Your task to perform on an android device: Go to location settings Image 0: 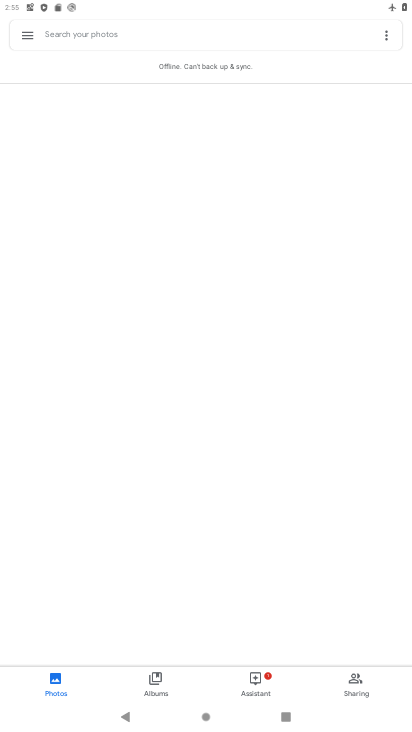
Step 0: press home button
Your task to perform on an android device: Go to location settings Image 1: 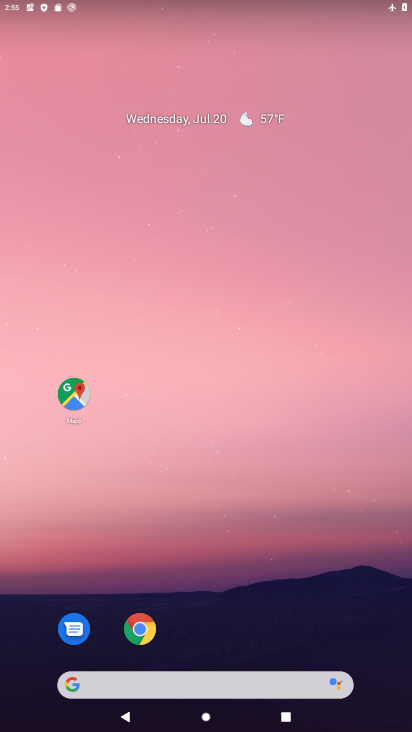
Step 1: drag from (208, 618) to (213, 190)
Your task to perform on an android device: Go to location settings Image 2: 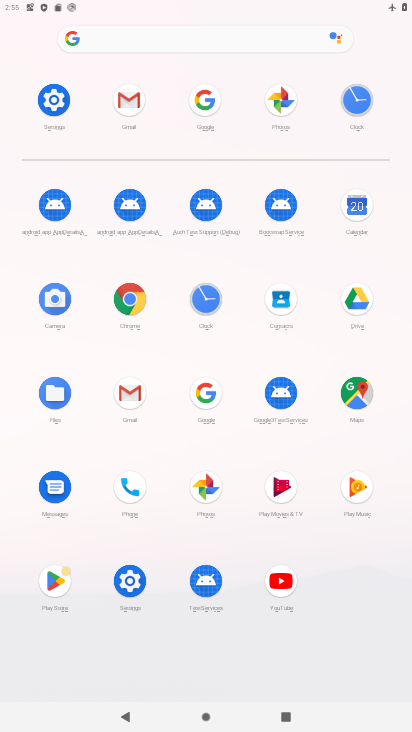
Step 2: click (67, 100)
Your task to perform on an android device: Go to location settings Image 3: 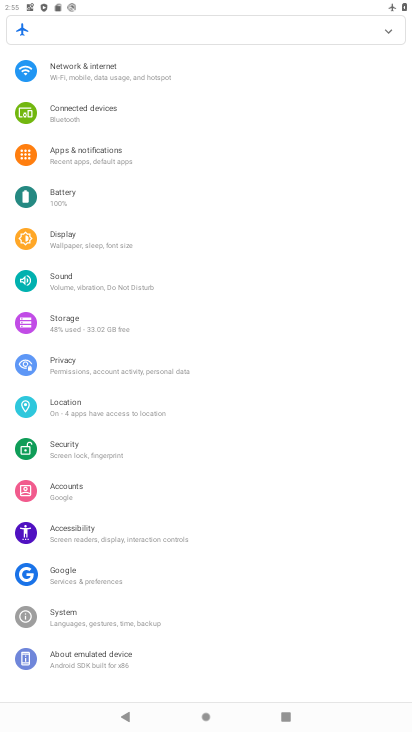
Step 3: click (80, 422)
Your task to perform on an android device: Go to location settings Image 4: 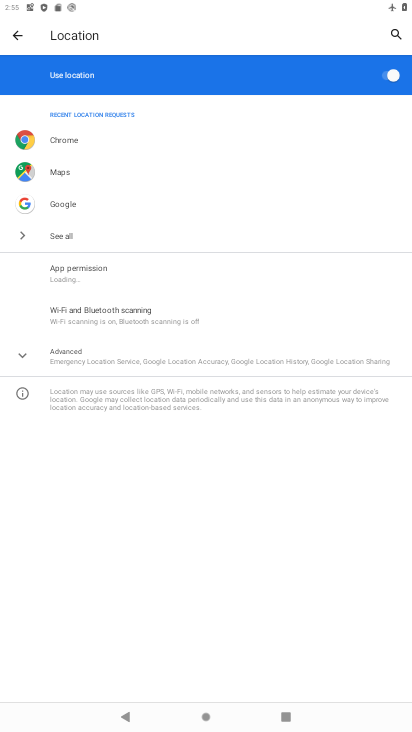
Step 4: task complete